Your task to perform on an android device: Open the calendar and show me this week's events Image 0: 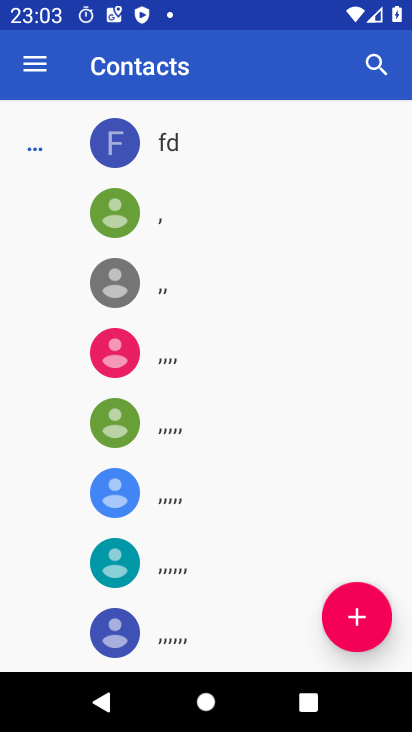
Step 0: press home button
Your task to perform on an android device: Open the calendar and show me this week's events Image 1: 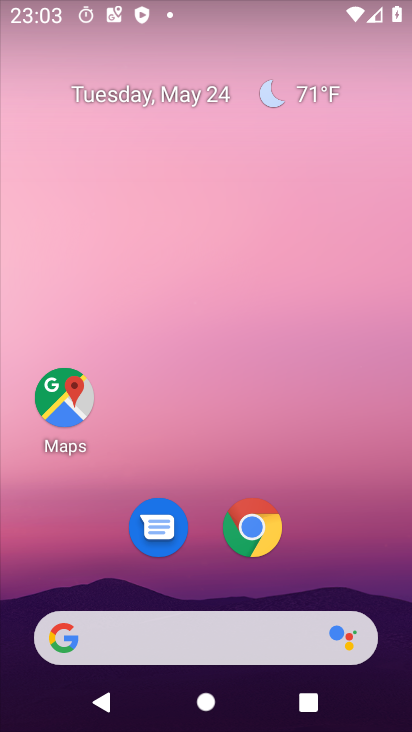
Step 1: drag from (305, 567) to (278, 4)
Your task to perform on an android device: Open the calendar and show me this week's events Image 2: 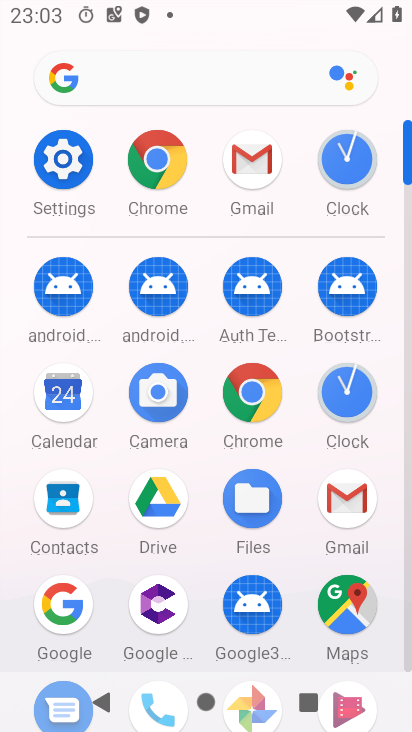
Step 2: click (64, 389)
Your task to perform on an android device: Open the calendar and show me this week's events Image 3: 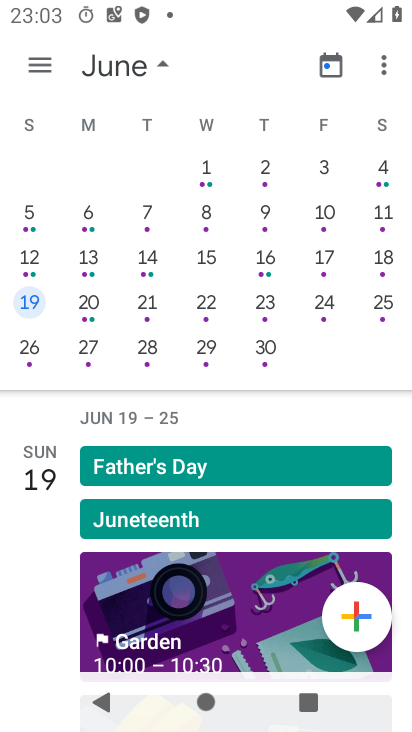
Step 3: drag from (79, 242) to (382, 241)
Your task to perform on an android device: Open the calendar and show me this week's events Image 4: 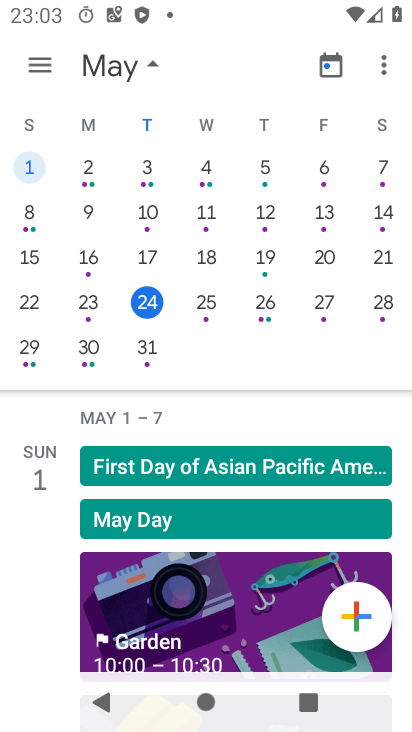
Step 4: click (147, 298)
Your task to perform on an android device: Open the calendar and show me this week's events Image 5: 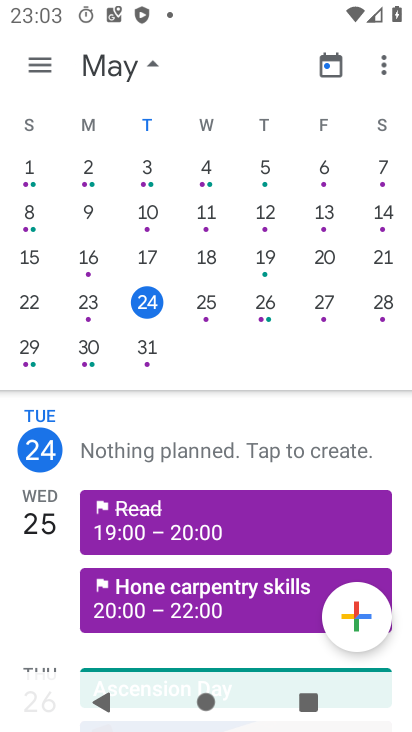
Step 5: task complete